Your task to perform on an android device: turn off data saver in the chrome app Image 0: 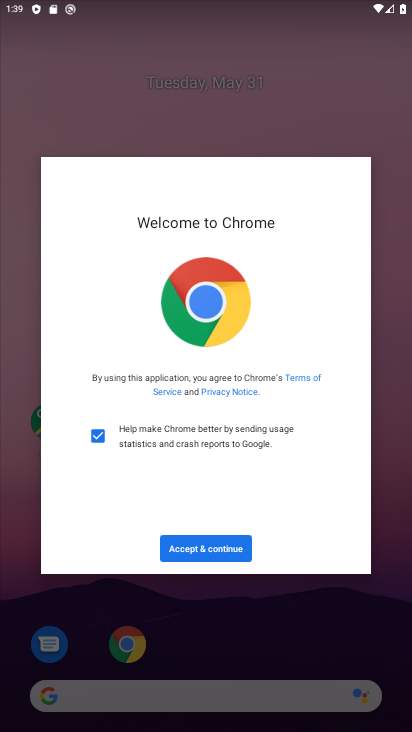
Step 0: click (198, 549)
Your task to perform on an android device: turn off data saver in the chrome app Image 1: 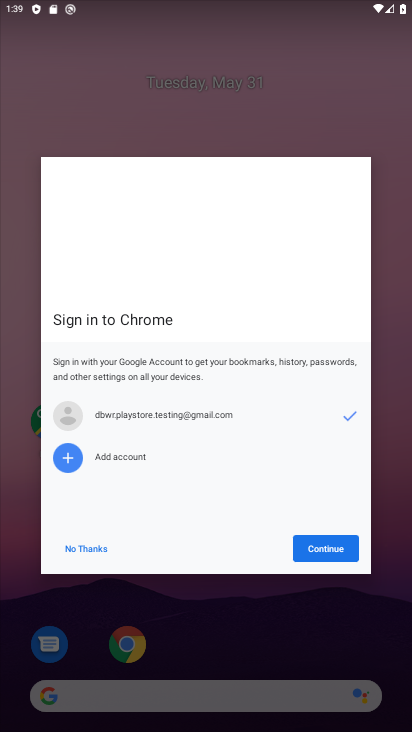
Step 1: click (323, 559)
Your task to perform on an android device: turn off data saver in the chrome app Image 2: 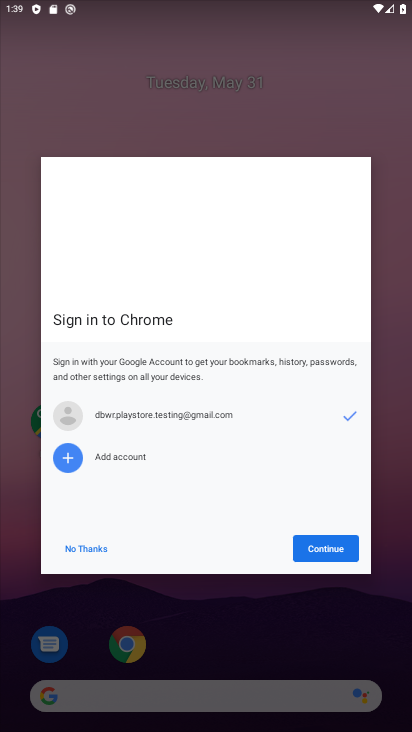
Step 2: click (323, 559)
Your task to perform on an android device: turn off data saver in the chrome app Image 3: 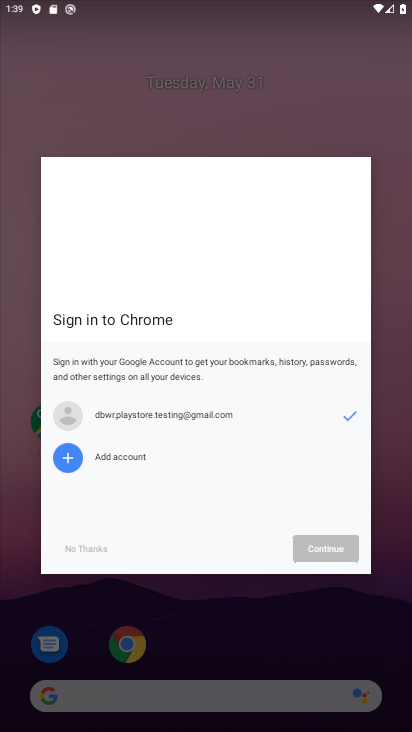
Step 3: click (323, 559)
Your task to perform on an android device: turn off data saver in the chrome app Image 4: 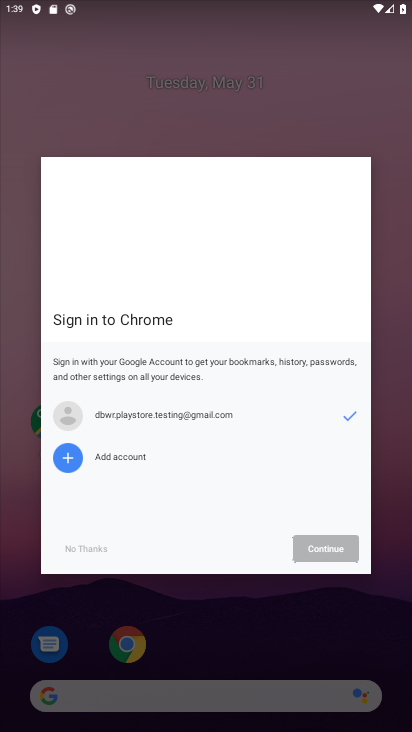
Step 4: click (323, 559)
Your task to perform on an android device: turn off data saver in the chrome app Image 5: 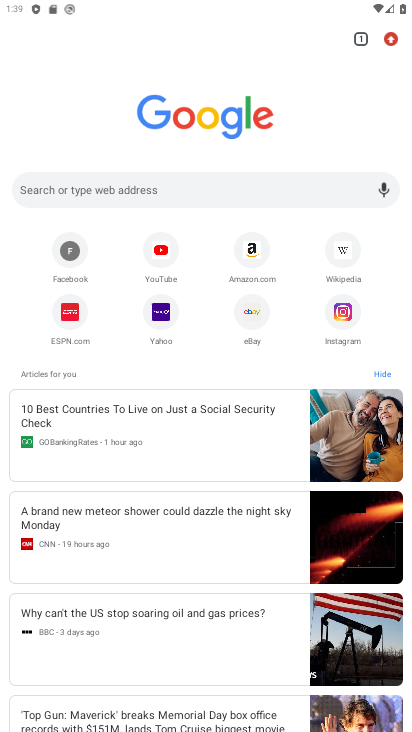
Step 5: drag from (390, 39) to (253, 357)
Your task to perform on an android device: turn off data saver in the chrome app Image 6: 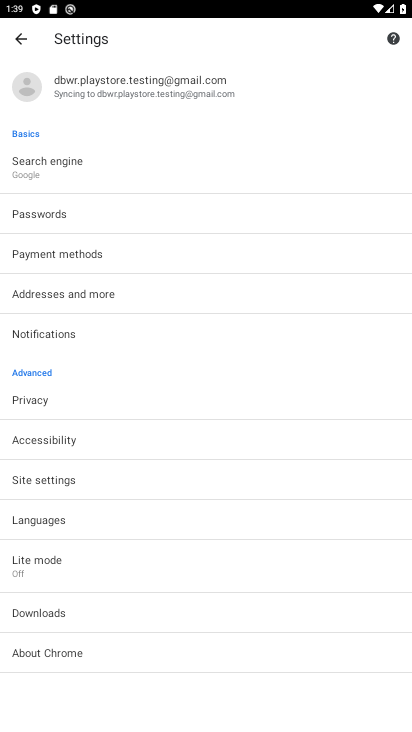
Step 6: drag from (282, 618) to (34, 562)
Your task to perform on an android device: turn off data saver in the chrome app Image 7: 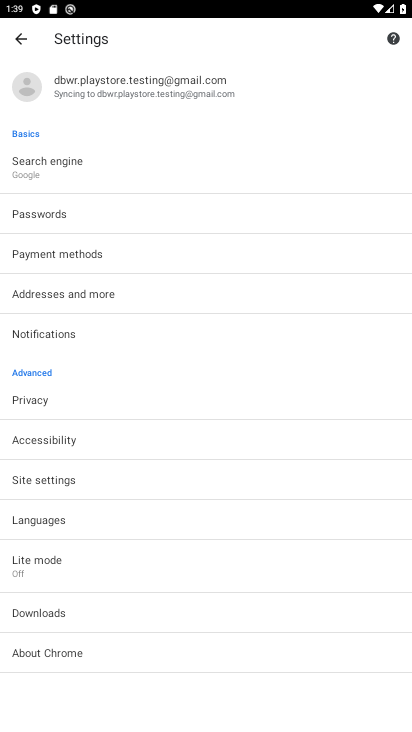
Step 7: click (47, 563)
Your task to perform on an android device: turn off data saver in the chrome app Image 8: 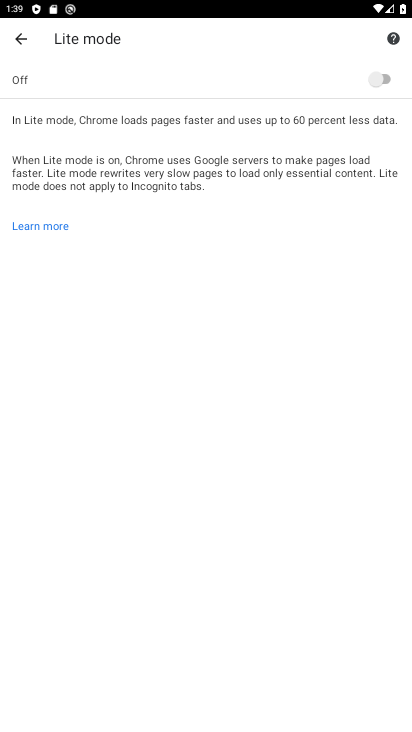
Step 8: task complete